Your task to perform on an android device: open chrome privacy settings Image 0: 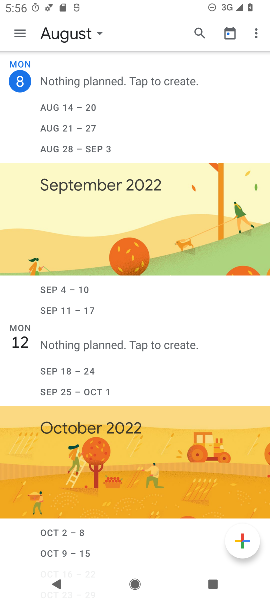
Step 0: press home button
Your task to perform on an android device: open chrome privacy settings Image 1: 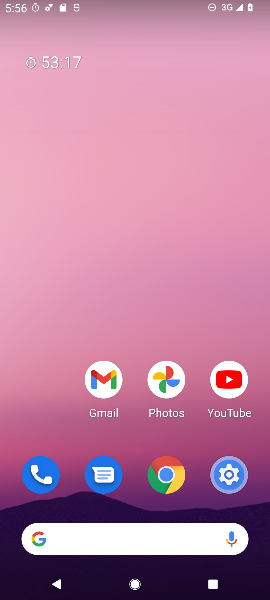
Step 1: drag from (58, 430) to (42, 253)
Your task to perform on an android device: open chrome privacy settings Image 2: 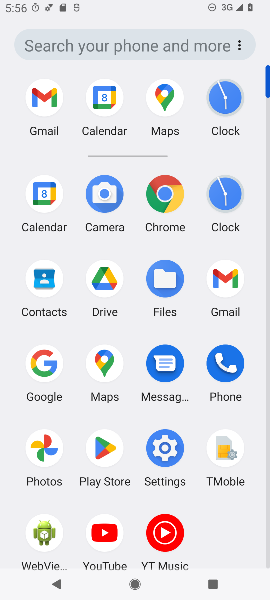
Step 2: click (163, 196)
Your task to perform on an android device: open chrome privacy settings Image 3: 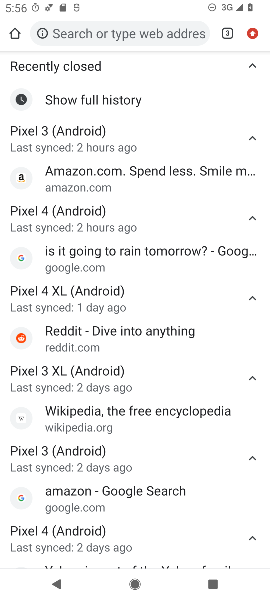
Step 3: click (252, 31)
Your task to perform on an android device: open chrome privacy settings Image 4: 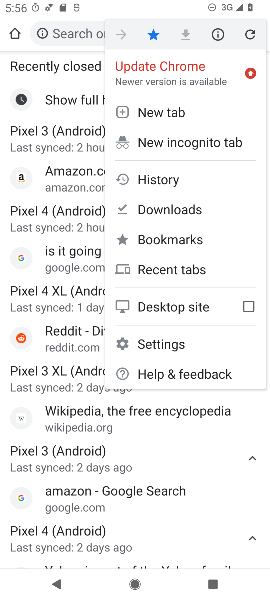
Step 4: click (173, 348)
Your task to perform on an android device: open chrome privacy settings Image 5: 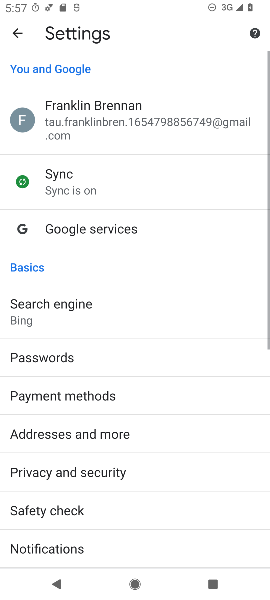
Step 5: drag from (185, 433) to (189, 398)
Your task to perform on an android device: open chrome privacy settings Image 6: 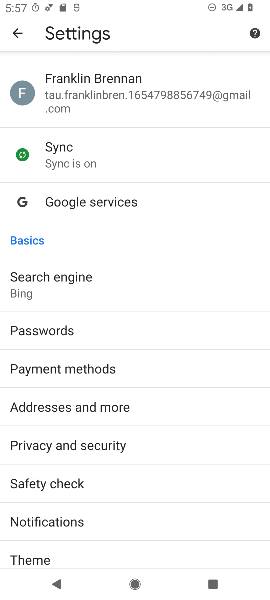
Step 6: drag from (186, 465) to (189, 380)
Your task to perform on an android device: open chrome privacy settings Image 7: 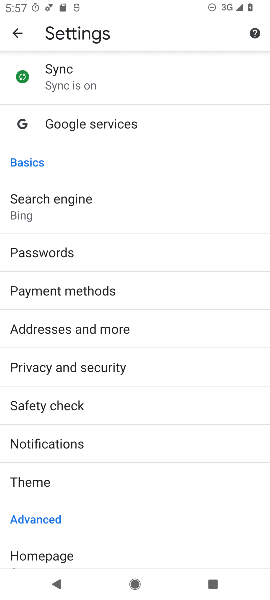
Step 7: click (149, 362)
Your task to perform on an android device: open chrome privacy settings Image 8: 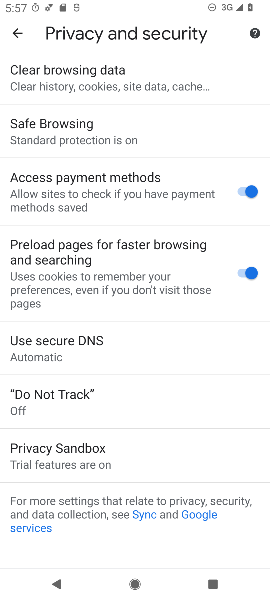
Step 8: task complete